Your task to perform on an android device: Open Yahoo.com Image 0: 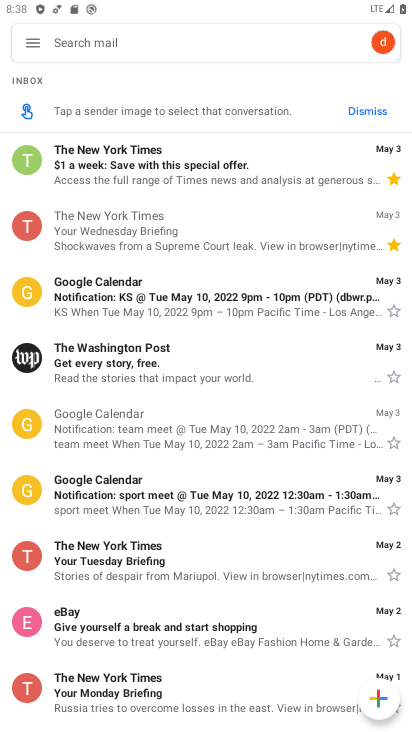
Step 0: press home button
Your task to perform on an android device: Open Yahoo.com Image 1: 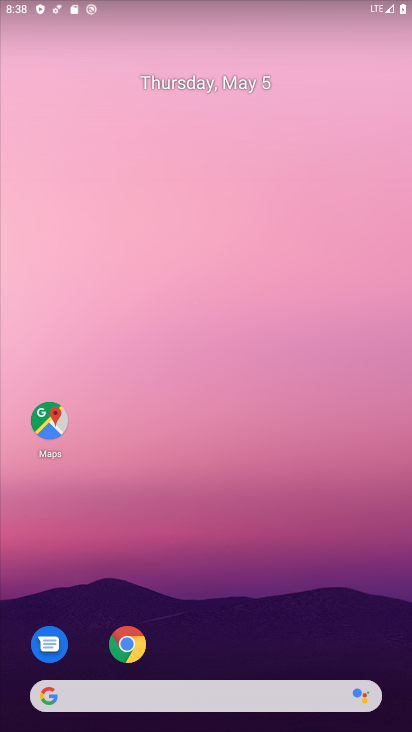
Step 1: drag from (287, 625) to (365, 155)
Your task to perform on an android device: Open Yahoo.com Image 2: 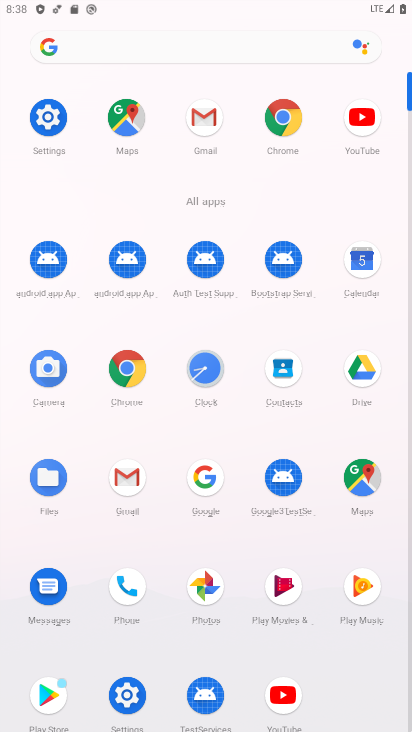
Step 2: click (288, 116)
Your task to perform on an android device: Open Yahoo.com Image 3: 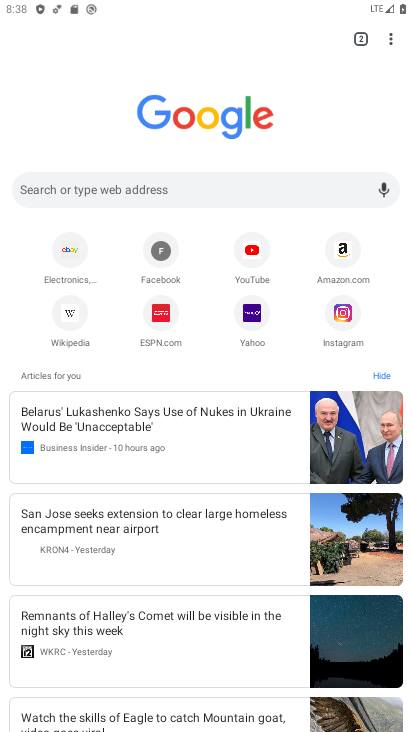
Step 3: click (255, 312)
Your task to perform on an android device: Open Yahoo.com Image 4: 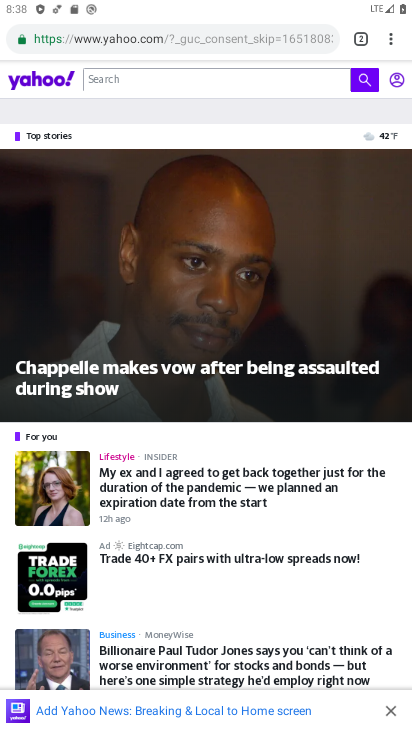
Step 4: task complete